Your task to perform on an android device: Open the web browser Image 0: 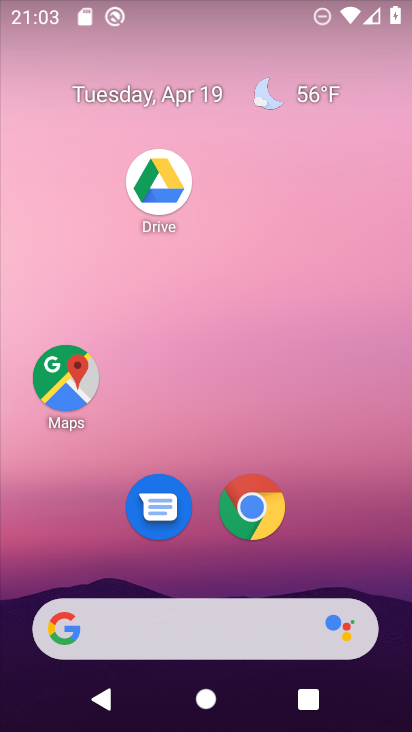
Step 0: click (248, 511)
Your task to perform on an android device: Open the web browser Image 1: 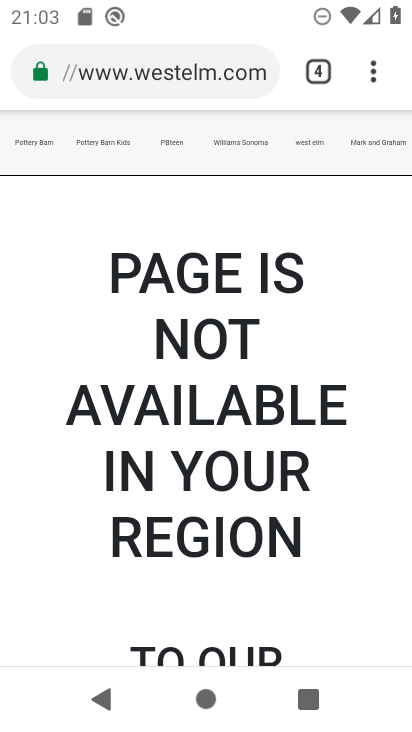
Step 1: click (374, 66)
Your task to perform on an android device: Open the web browser Image 2: 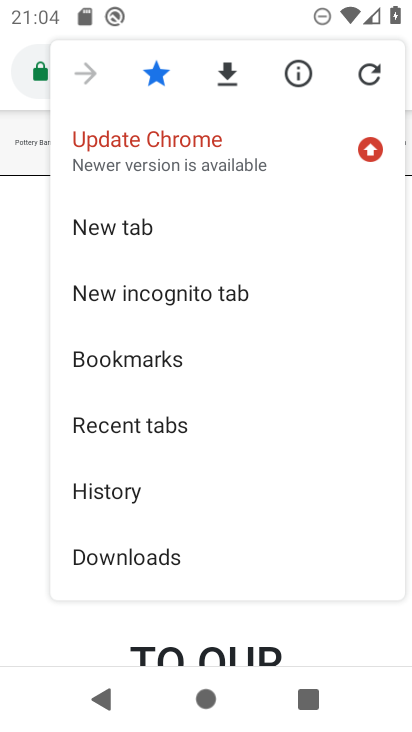
Step 2: click (216, 225)
Your task to perform on an android device: Open the web browser Image 3: 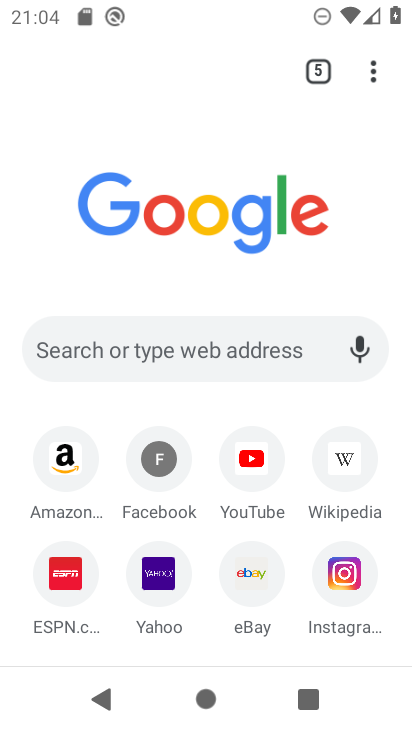
Step 3: task complete